Your task to perform on an android device: change keyboard looks Image 0: 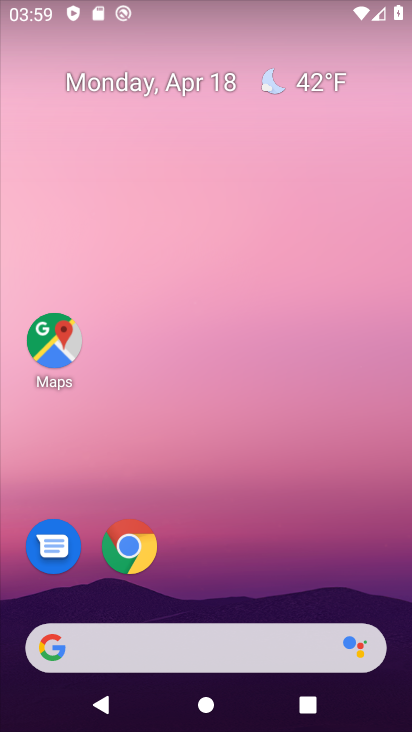
Step 0: click (258, 242)
Your task to perform on an android device: change keyboard looks Image 1: 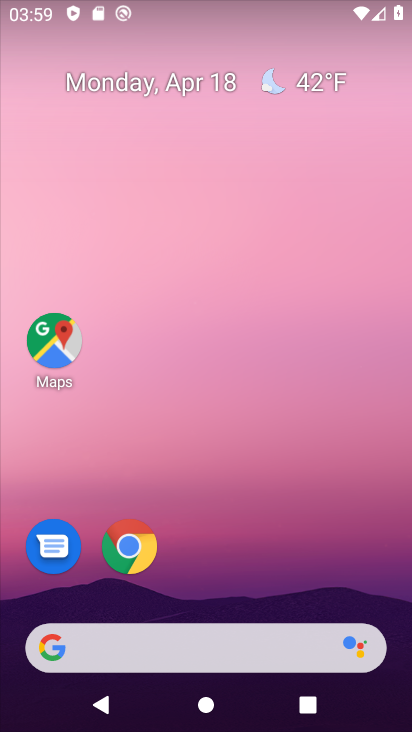
Step 1: drag from (255, 574) to (368, 157)
Your task to perform on an android device: change keyboard looks Image 2: 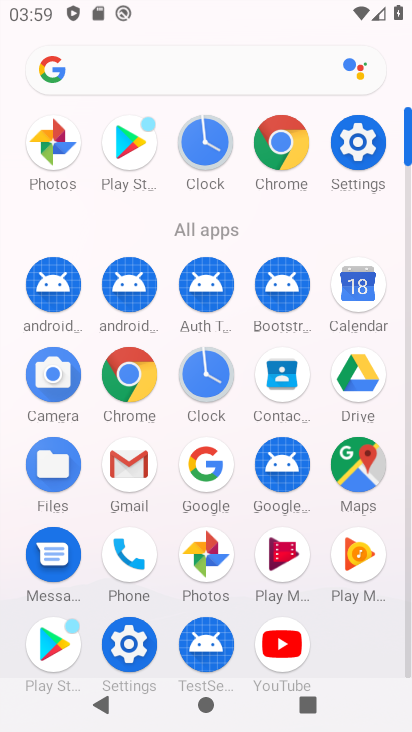
Step 2: click (364, 137)
Your task to perform on an android device: change keyboard looks Image 3: 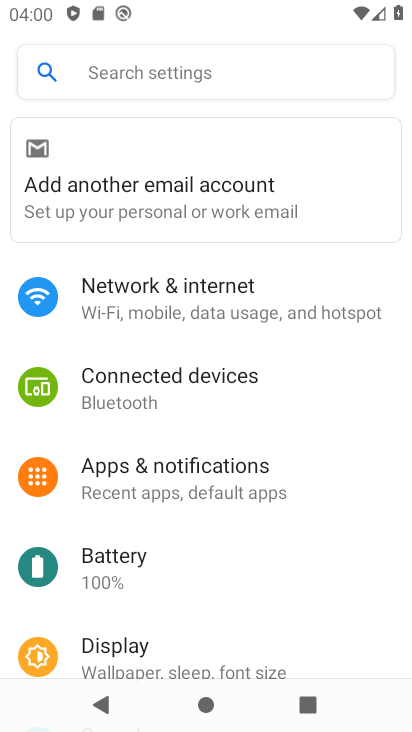
Step 3: drag from (212, 595) to (267, 180)
Your task to perform on an android device: change keyboard looks Image 4: 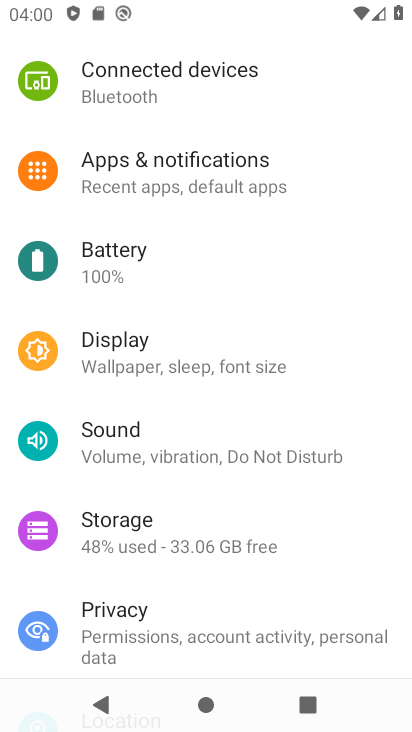
Step 4: drag from (184, 595) to (187, 191)
Your task to perform on an android device: change keyboard looks Image 5: 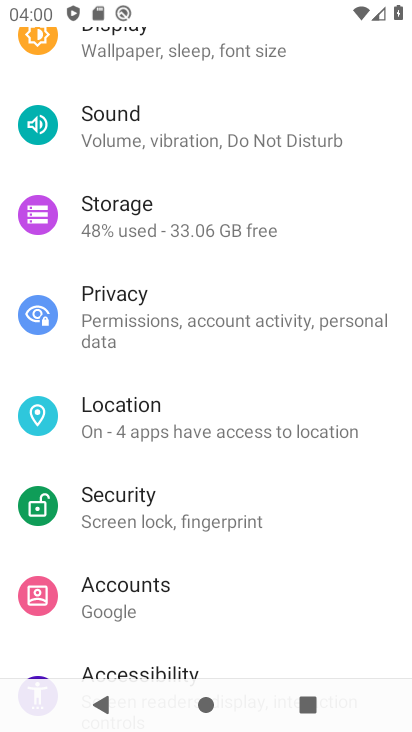
Step 5: drag from (190, 550) to (273, 177)
Your task to perform on an android device: change keyboard looks Image 6: 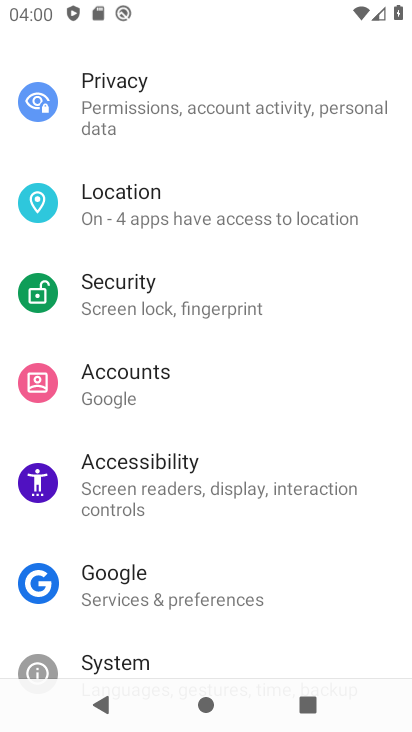
Step 6: drag from (228, 468) to (286, 140)
Your task to perform on an android device: change keyboard looks Image 7: 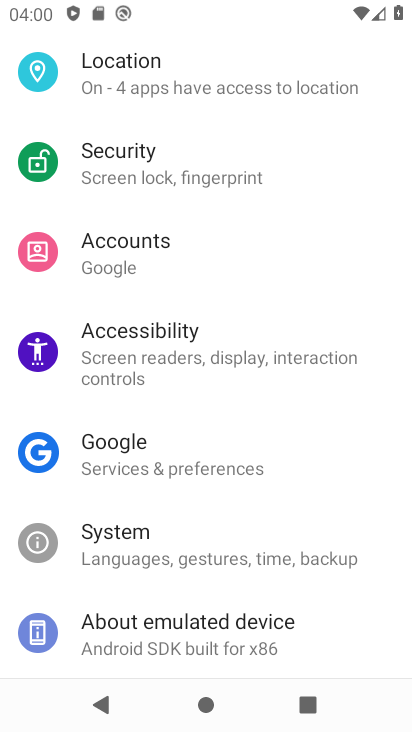
Step 7: click (210, 559)
Your task to perform on an android device: change keyboard looks Image 8: 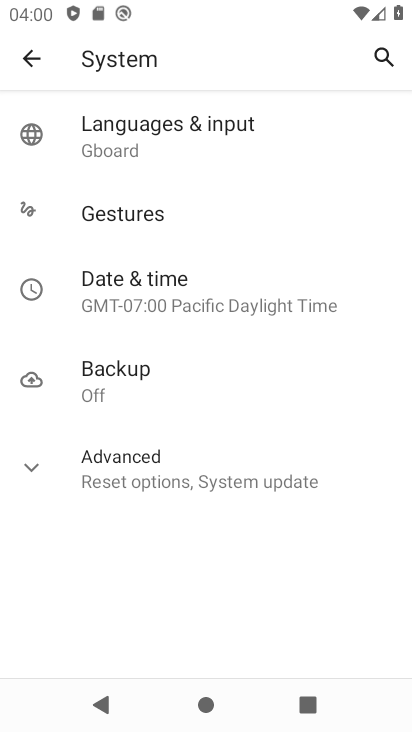
Step 8: click (194, 208)
Your task to perform on an android device: change keyboard looks Image 9: 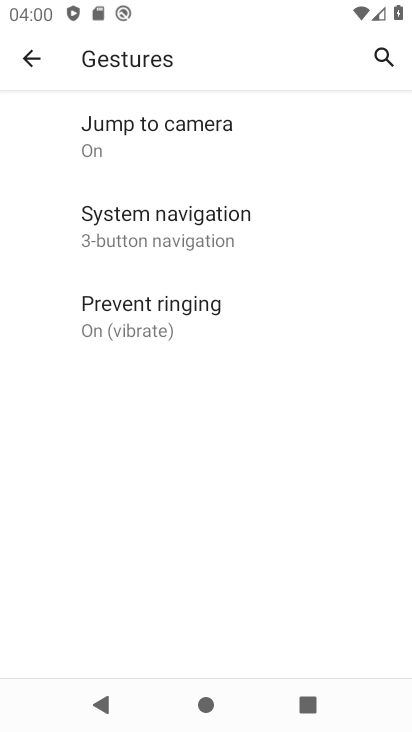
Step 9: press back button
Your task to perform on an android device: change keyboard looks Image 10: 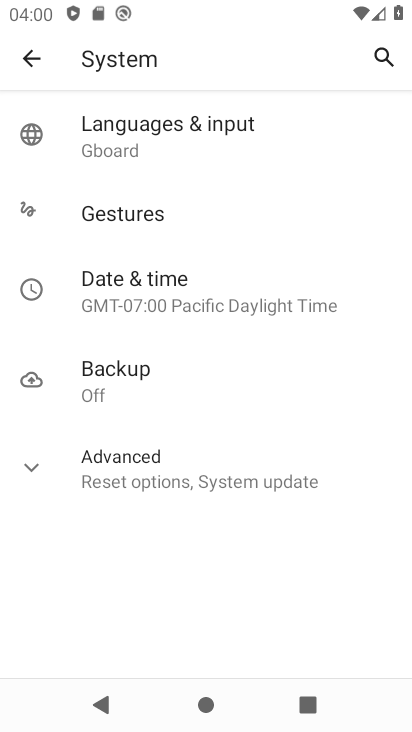
Step 10: click (97, 125)
Your task to perform on an android device: change keyboard looks Image 11: 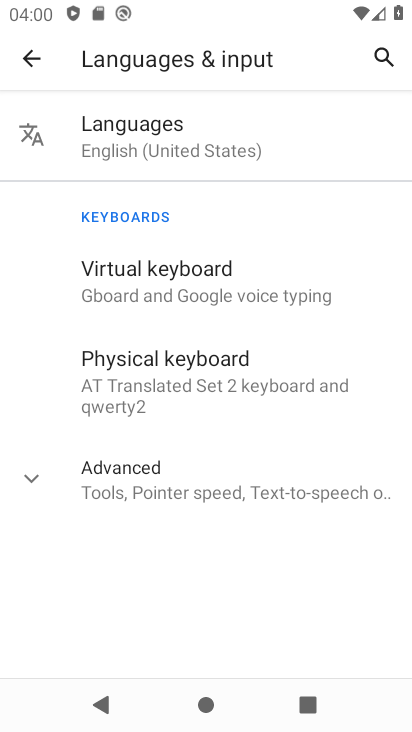
Step 11: click (115, 268)
Your task to perform on an android device: change keyboard looks Image 12: 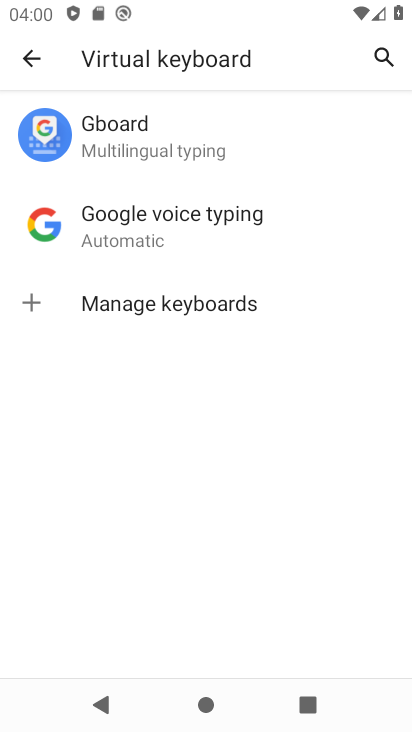
Step 12: click (154, 222)
Your task to perform on an android device: change keyboard looks Image 13: 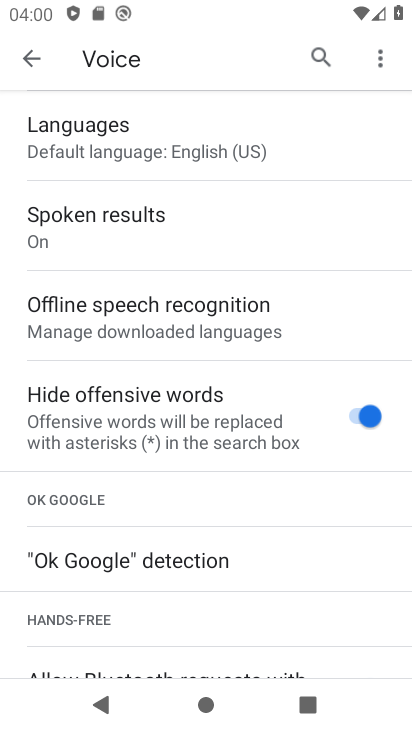
Step 13: press back button
Your task to perform on an android device: change keyboard looks Image 14: 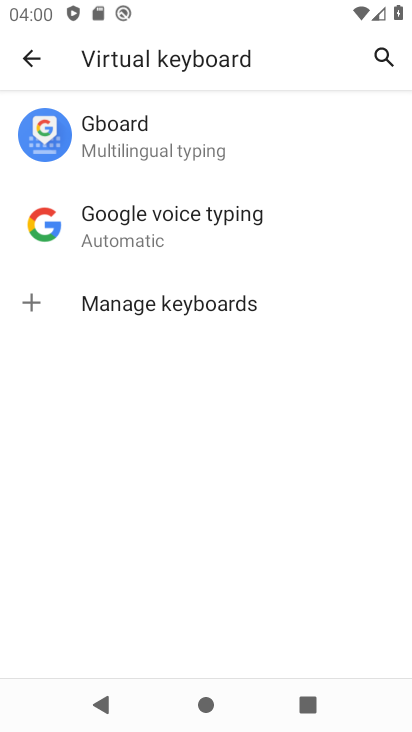
Step 14: click (177, 114)
Your task to perform on an android device: change keyboard looks Image 15: 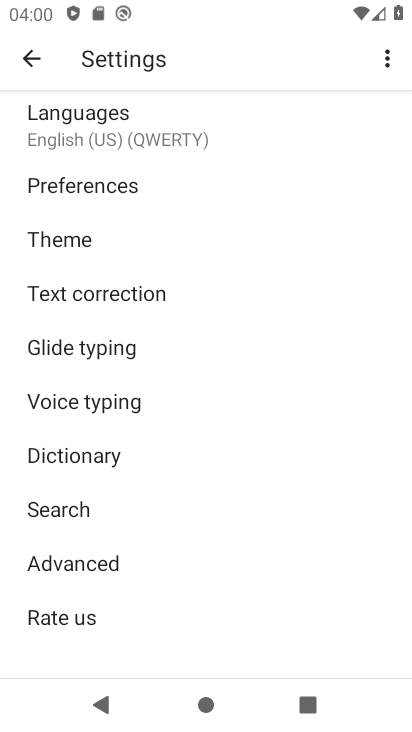
Step 15: click (107, 255)
Your task to perform on an android device: change keyboard looks Image 16: 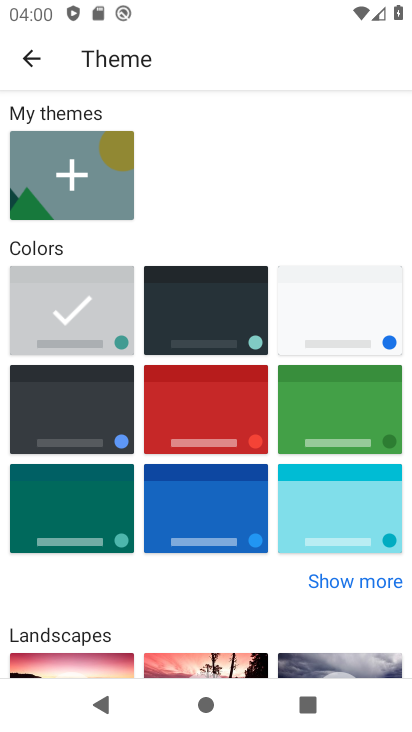
Step 16: drag from (167, 565) to (230, 238)
Your task to perform on an android device: change keyboard looks Image 17: 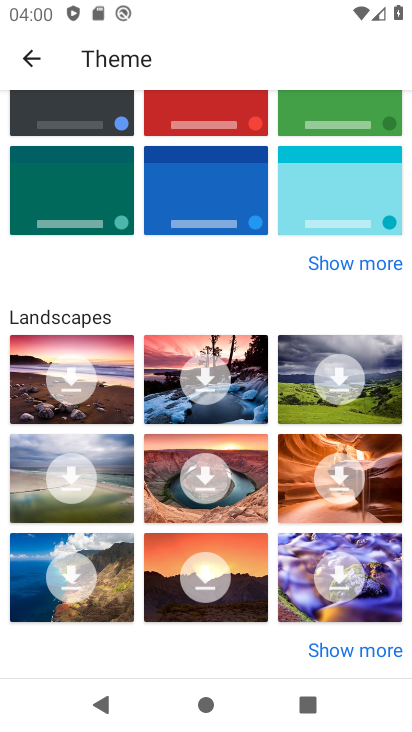
Step 17: click (175, 474)
Your task to perform on an android device: change keyboard looks Image 18: 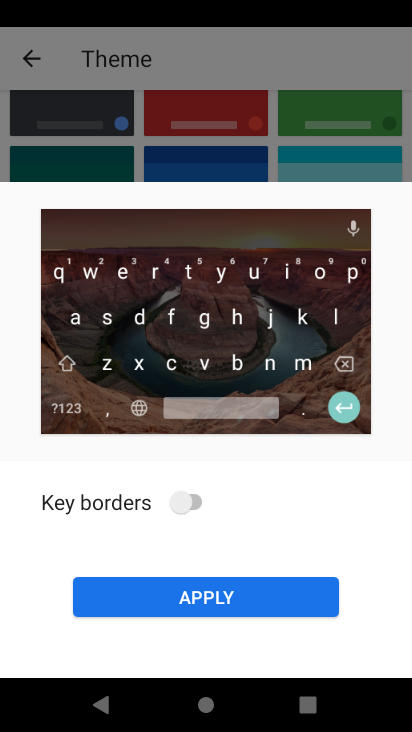
Step 18: click (193, 485)
Your task to perform on an android device: change keyboard looks Image 19: 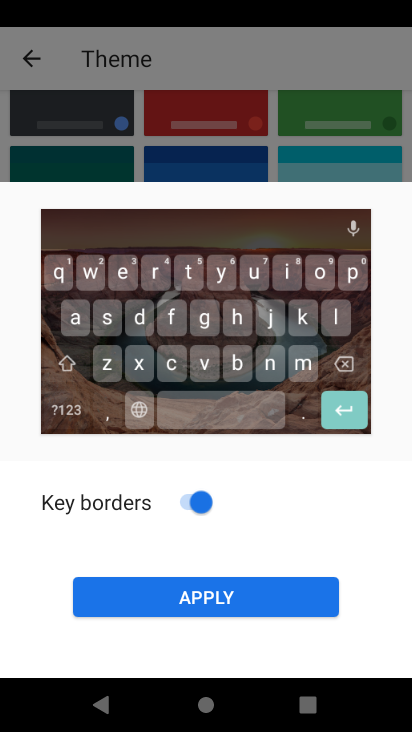
Step 19: click (273, 597)
Your task to perform on an android device: change keyboard looks Image 20: 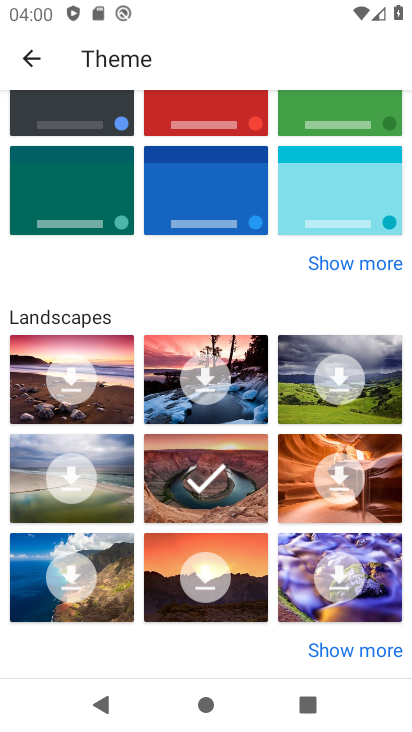
Step 20: task complete